Your task to perform on an android device: open a new tab in the chrome app Image 0: 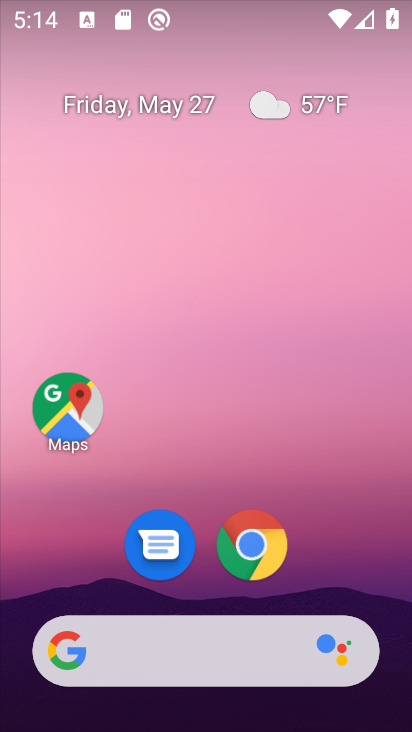
Step 0: click (268, 543)
Your task to perform on an android device: open a new tab in the chrome app Image 1: 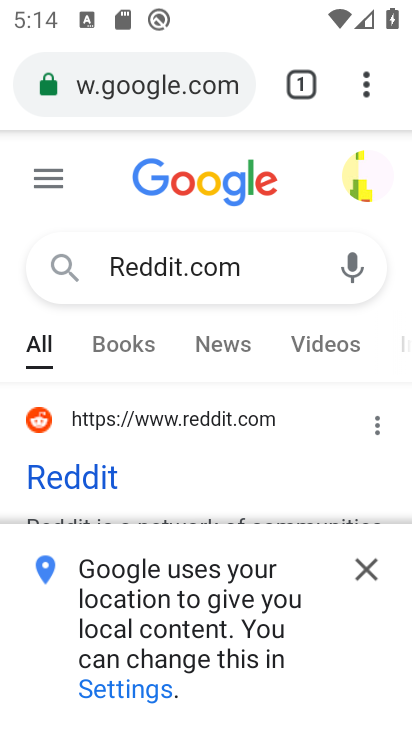
Step 1: click (355, 83)
Your task to perform on an android device: open a new tab in the chrome app Image 2: 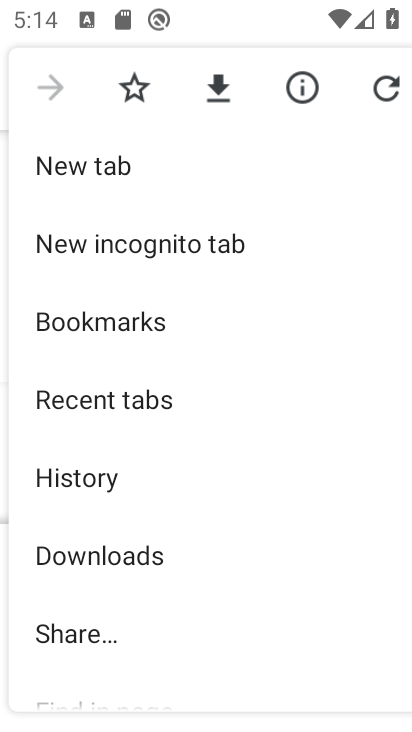
Step 2: click (63, 164)
Your task to perform on an android device: open a new tab in the chrome app Image 3: 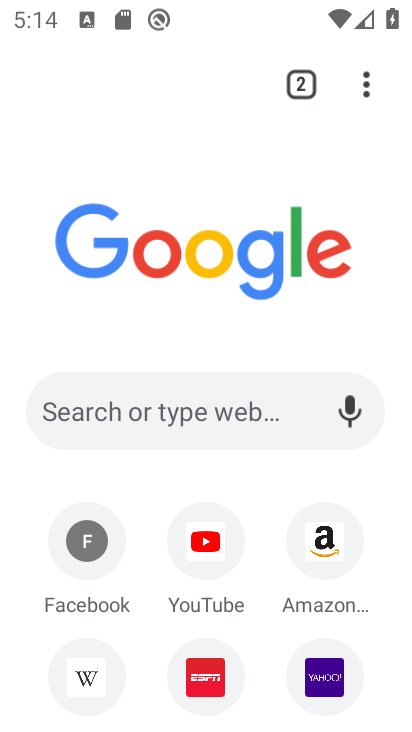
Step 3: task complete